Your task to perform on an android device: turn pop-ups off in chrome Image 0: 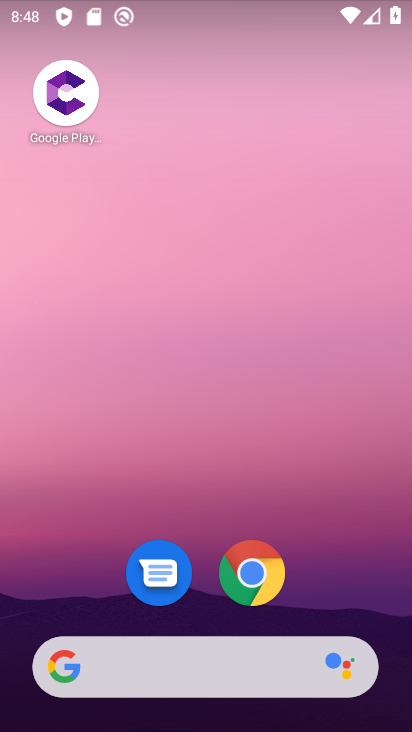
Step 0: click (247, 581)
Your task to perform on an android device: turn pop-ups off in chrome Image 1: 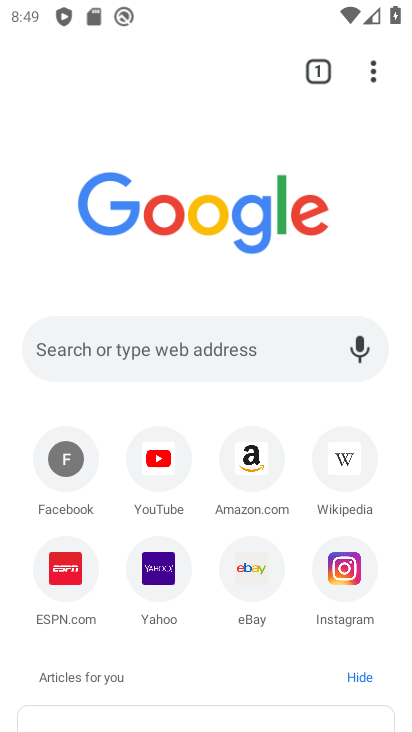
Step 1: click (372, 64)
Your task to perform on an android device: turn pop-ups off in chrome Image 2: 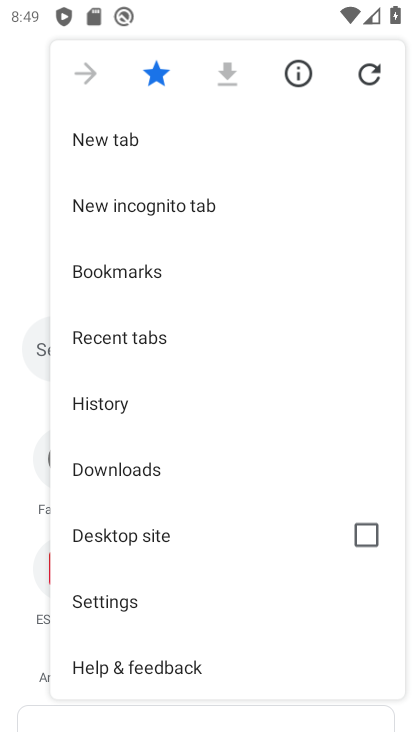
Step 2: drag from (191, 607) to (192, 392)
Your task to perform on an android device: turn pop-ups off in chrome Image 3: 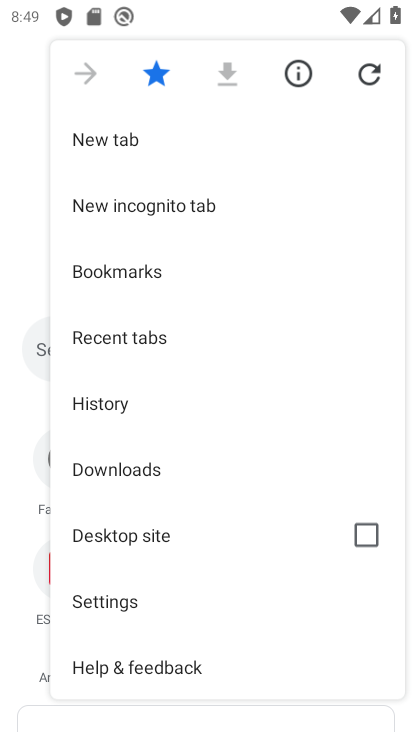
Step 3: click (119, 585)
Your task to perform on an android device: turn pop-ups off in chrome Image 4: 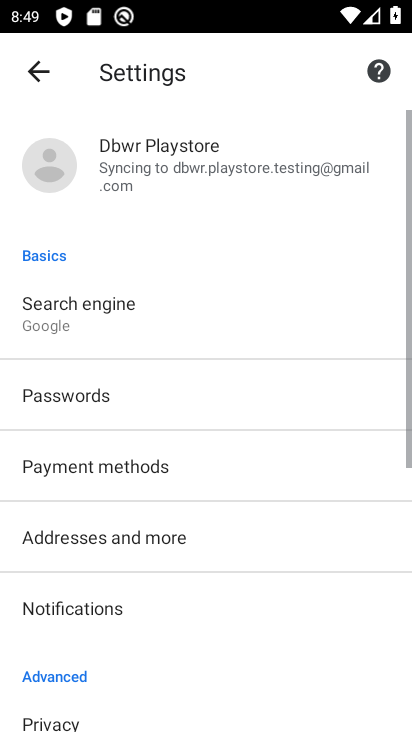
Step 4: drag from (250, 616) to (225, 72)
Your task to perform on an android device: turn pop-ups off in chrome Image 5: 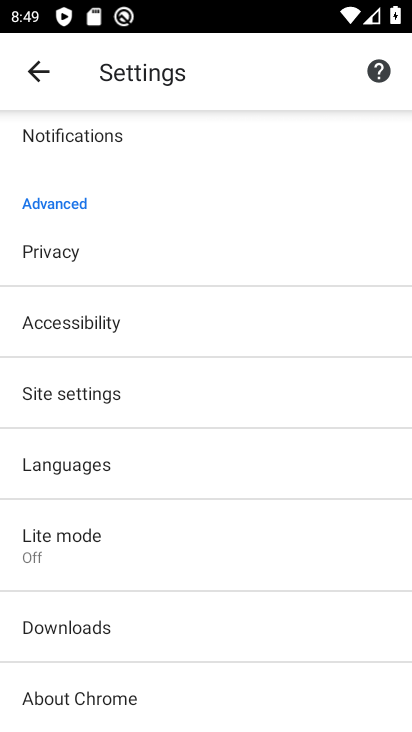
Step 5: click (68, 378)
Your task to perform on an android device: turn pop-ups off in chrome Image 6: 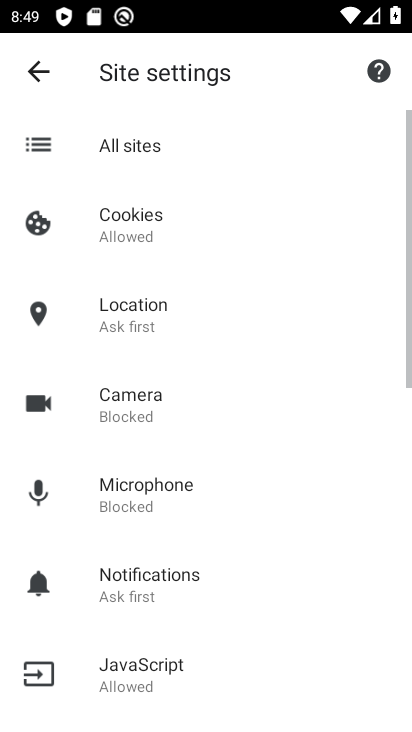
Step 6: drag from (195, 589) to (206, 210)
Your task to perform on an android device: turn pop-ups off in chrome Image 7: 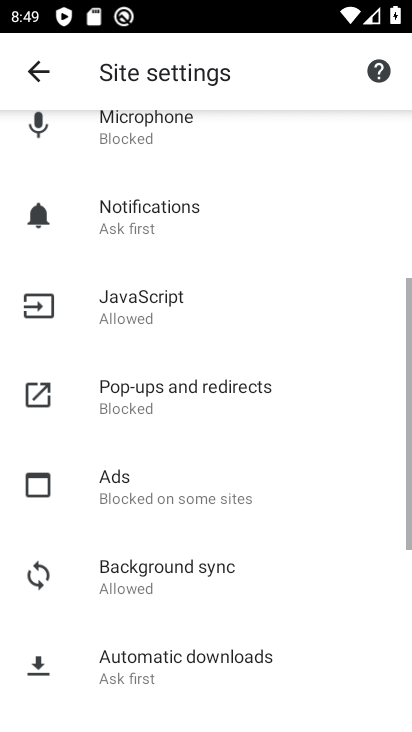
Step 7: click (164, 396)
Your task to perform on an android device: turn pop-ups off in chrome Image 8: 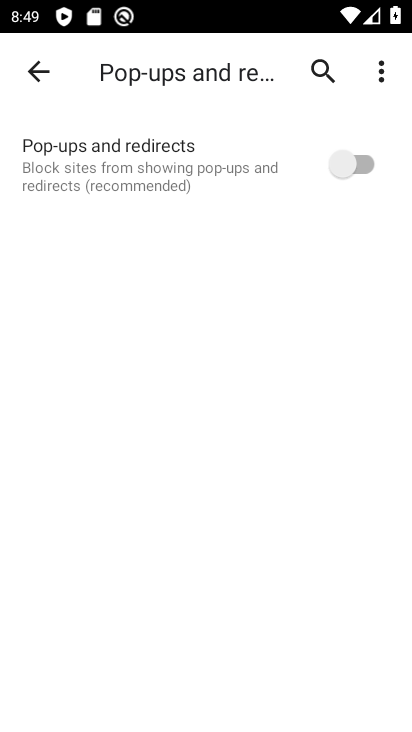
Step 8: task complete